Your task to perform on an android device: Open Yahoo.com Image 0: 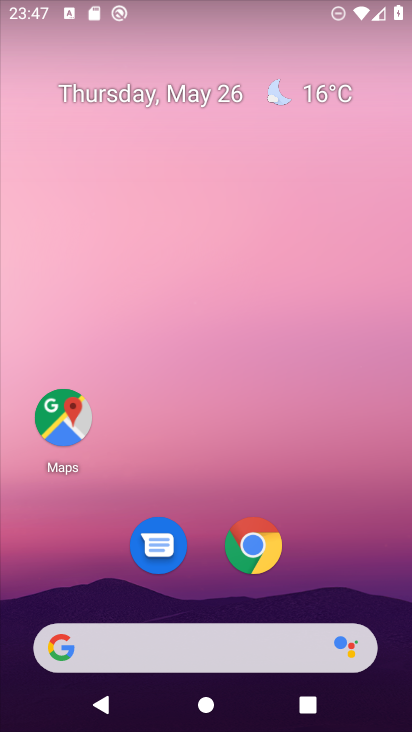
Step 0: press home button
Your task to perform on an android device: Open Yahoo.com Image 1: 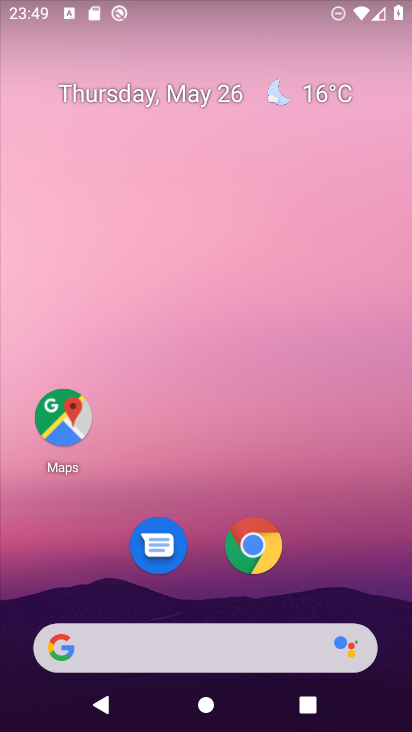
Step 1: click (59, 649)
Your task to perform on an android device: Open Yahoo.com Image 2: 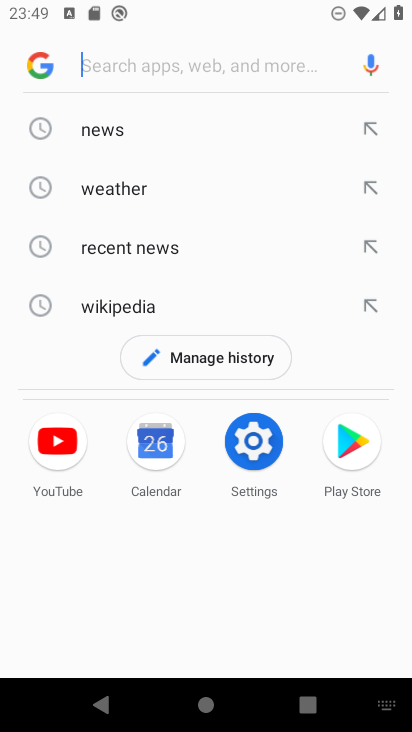
Step 2: type "Yahoo.com"
Your task to perform on an android device: Open Yahoo.com Image 3: 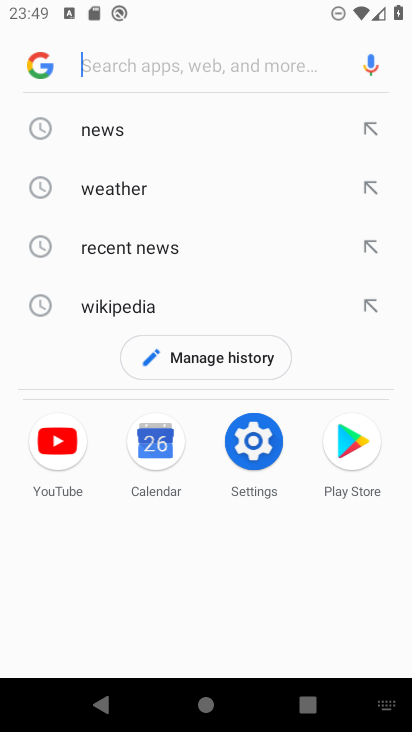
Step 3: click (200, 57)
Your task to perform on an android device: Open Yahoo.com Image 4: 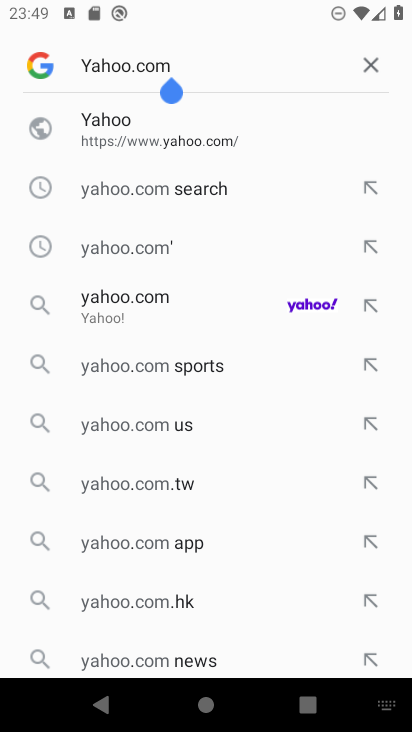
Step 4: click (149, 136)
Your task to perform on an android device: Open Yahoo.com Image 5: 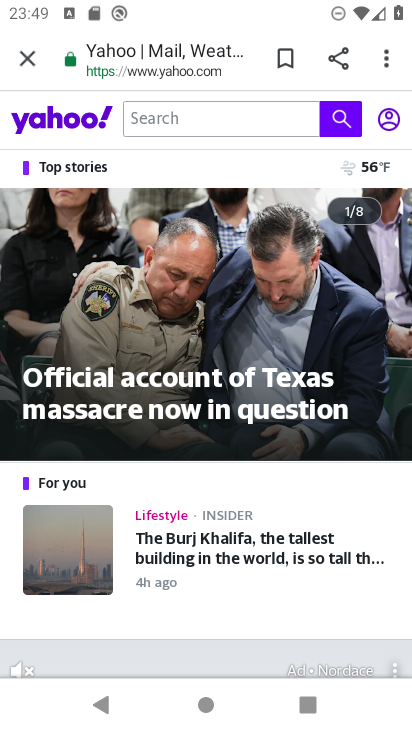
Step 5: task complete